Your task to perform on an android device: turn off improve location accuracy Image 0: 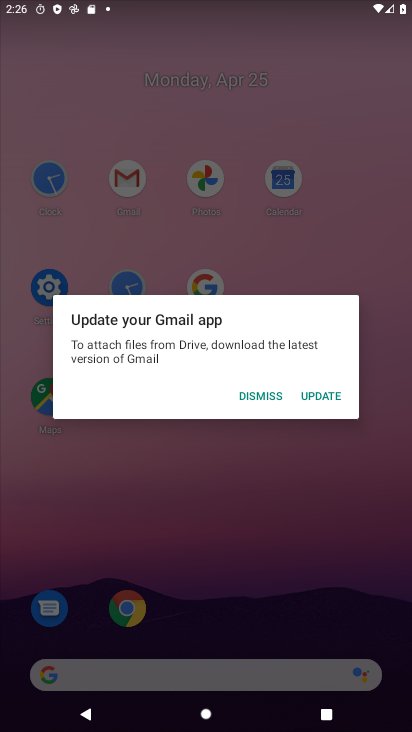
Step 0: click (328, 394)
Your task to perform on an android device: turn off improve location accuracy Image 1: 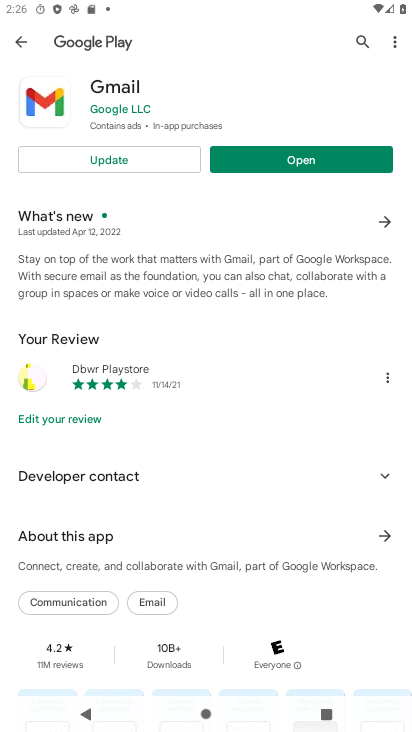
Step 1: click (141, 152)
Your task to perform on an android device: turn off improve location accuracy Image 2: 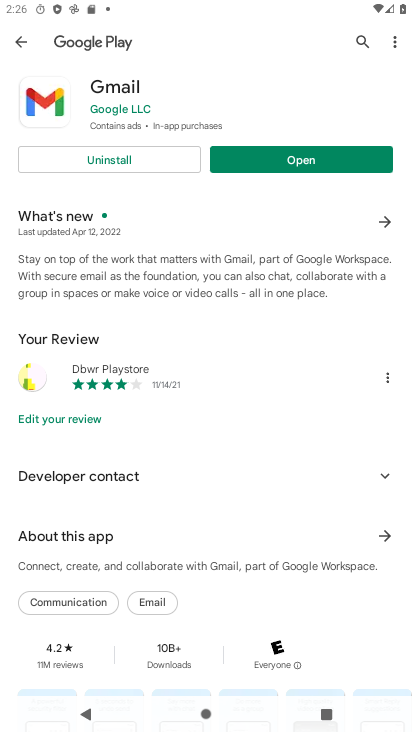
Step 2: press home button
Your task to perform on an android device: turn off improve location accuracy Image 3: 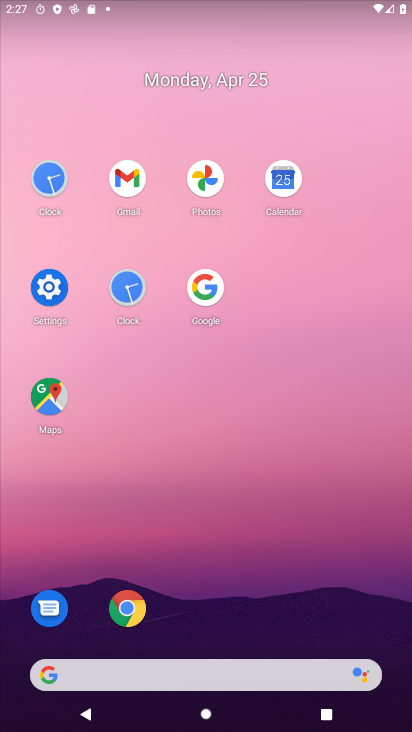
Step 3: click (48, 293)
Your task to perform on an android device: turn off improve location accuracy Image 4: 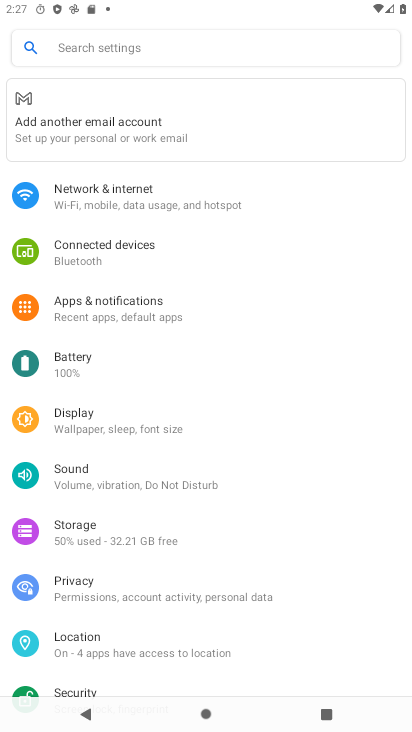
Step 4: click (115, 644)
Your task to perform on an android device: turn off improve location accuracy Image 5: 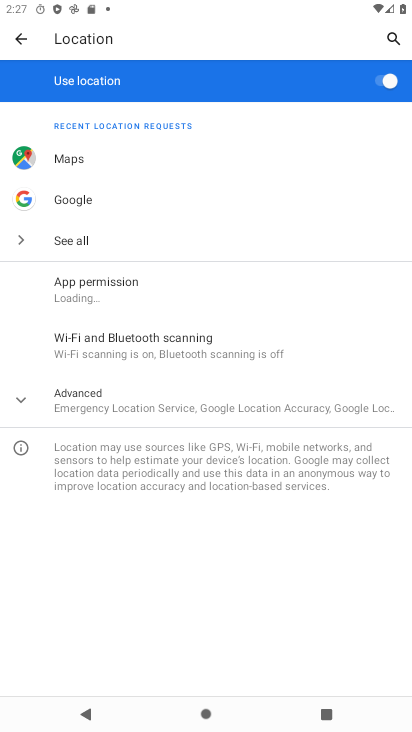
Step 5: click (134, 416)
Your task to perform on an android device: turn off improve location accuracy Image 6: 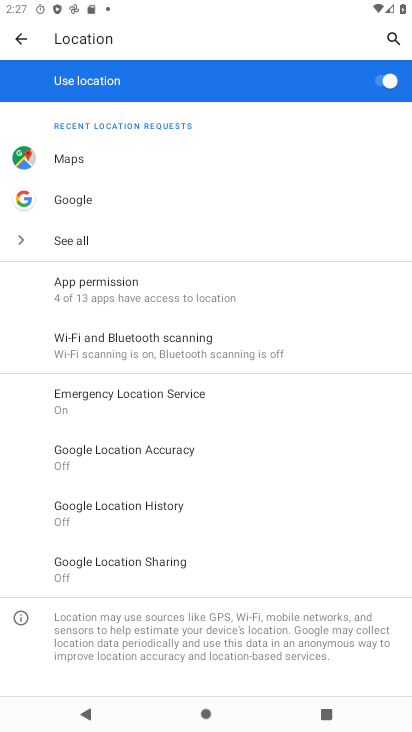
Step 6: click (134, 457)
Your task to perform on an android device: turn off improve location accuracy Image 7: 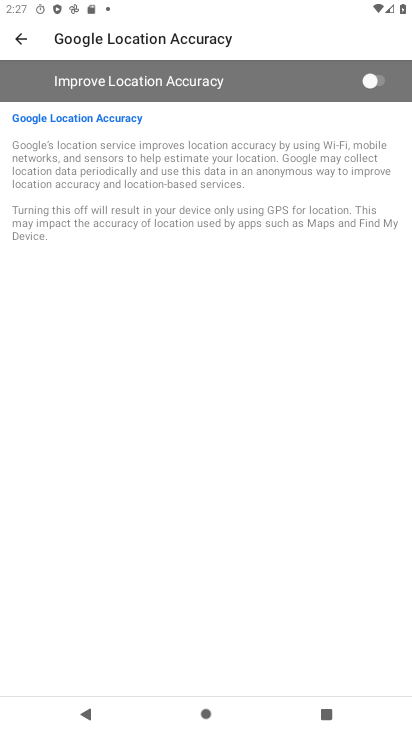
Step 7: task complete